Your task to perform on an android device: Is it going to rain this weekend? Image 0: 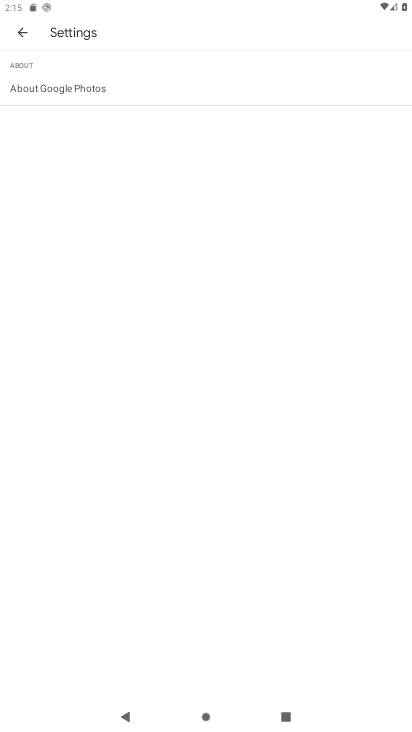
Step 0: press home button
Your task to perform on an android device: Is it going to rain this weekend? Image 1: 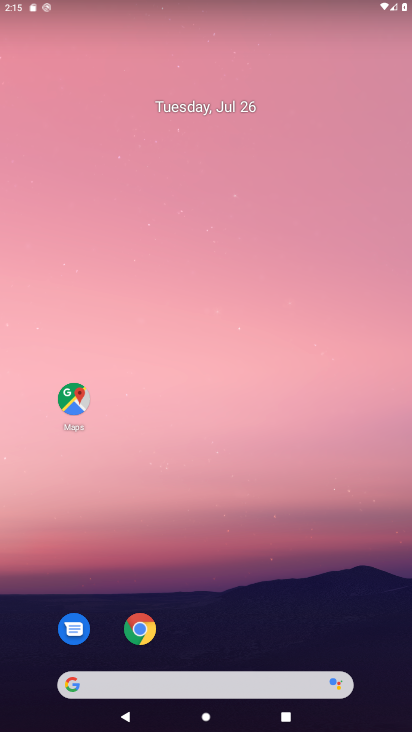
Step 1: drag from (198, 655) to (151, 159)
Your task to perform on an android device: Is it going to rain this weekend? Image 2: 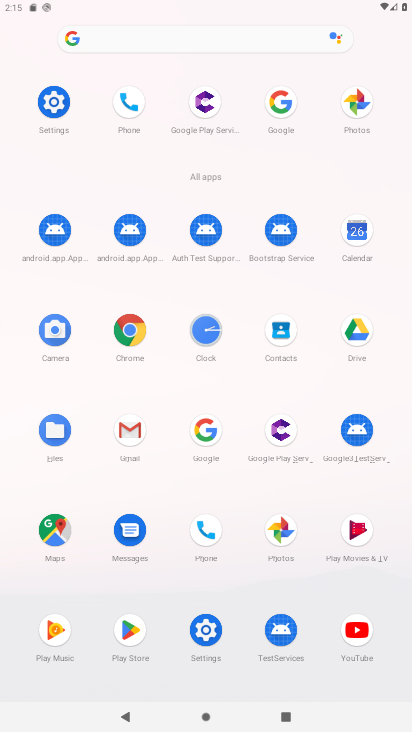
Step 2: click (216, 440)
Your task to perform on an android device: Is it going to rain this weekend? Image 3: 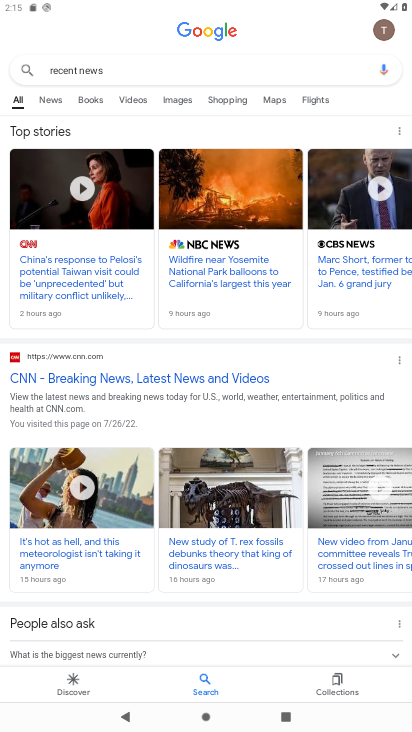
Step 3: click (112, 71)
Your task to perform on an android device: Is it going to rain this weekend? Image 4: 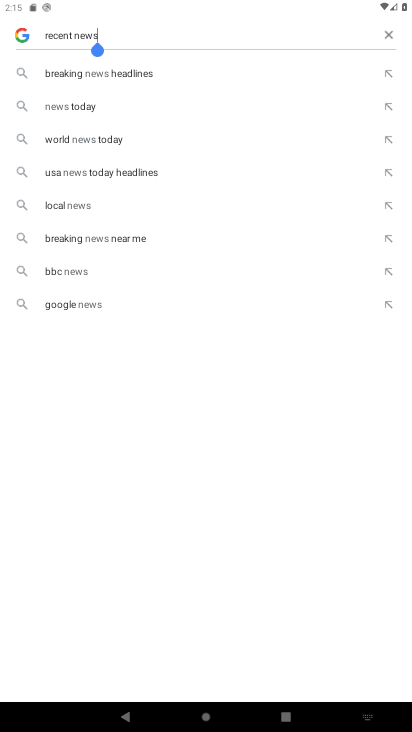
Step 4: click (387, 32)
Your task to perform on an android device: Is it going to rain this weekend? Image 5: 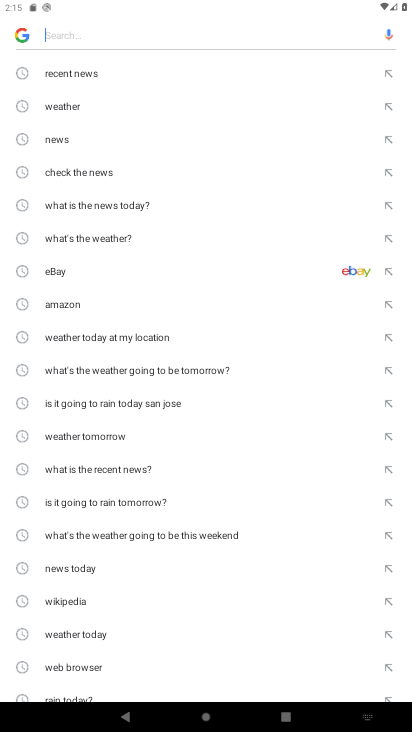
Step 5: click (60, 109)
Your task to perform on an android device: Is it going to rain this weekend? Image 6: 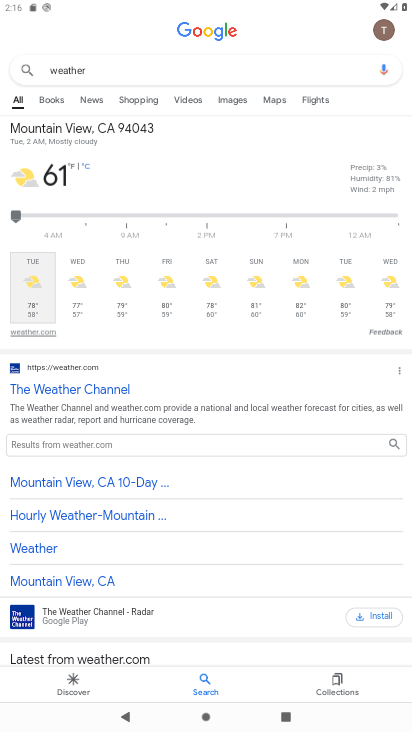
Step 6: task complete